Your task to perform on an android device: change the clock display to show seconds Image 0: 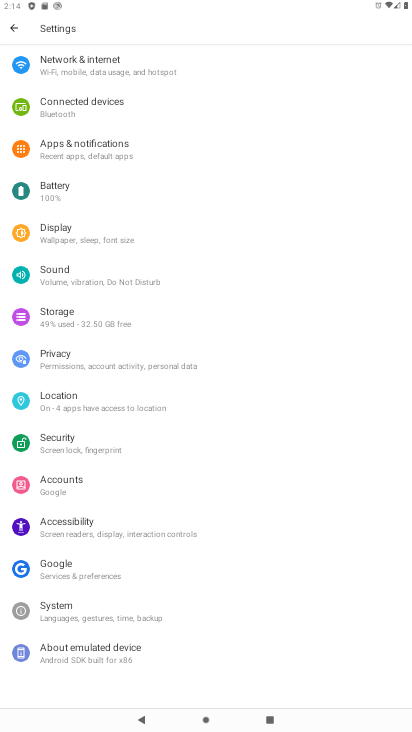
Step 0: press home button
Your task to perform on an android device: change the clock display to show seconds Image 1: 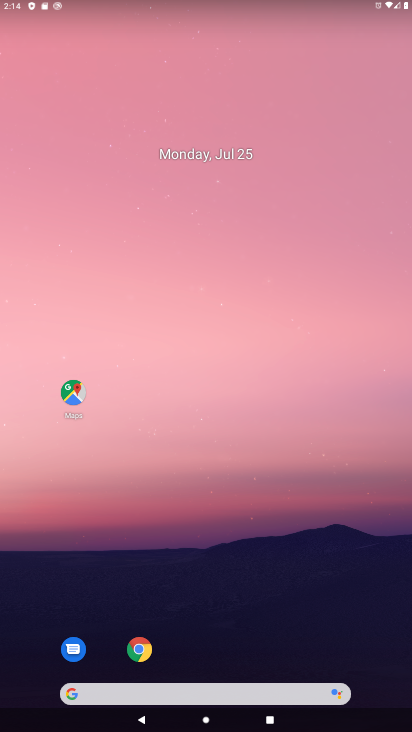
Step 1: drag from (384, 671) to (305, 86)
Your task to perform on an android device: change the clock display to show seconds Image 2: 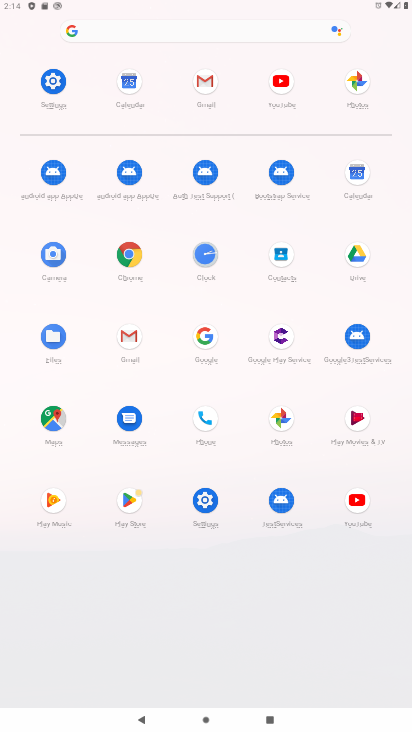
Step 2: click (208, 252)
Your task to perform on an android device: change the clock display to show seconds Image 3: 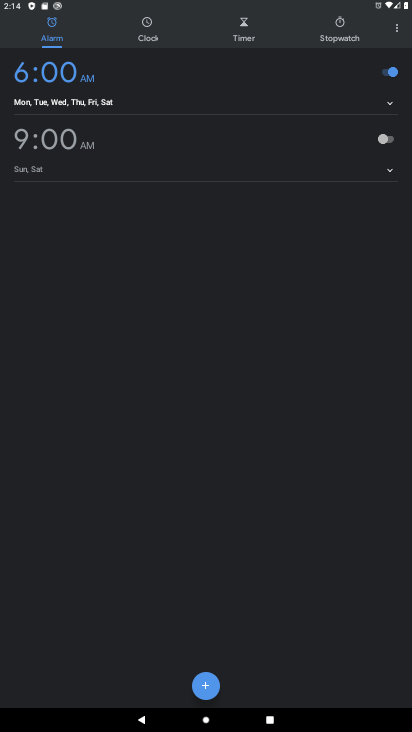
Step 3: click (398, 35)
Your task to perform on an android device: change the clock display to show seconds Image 4: 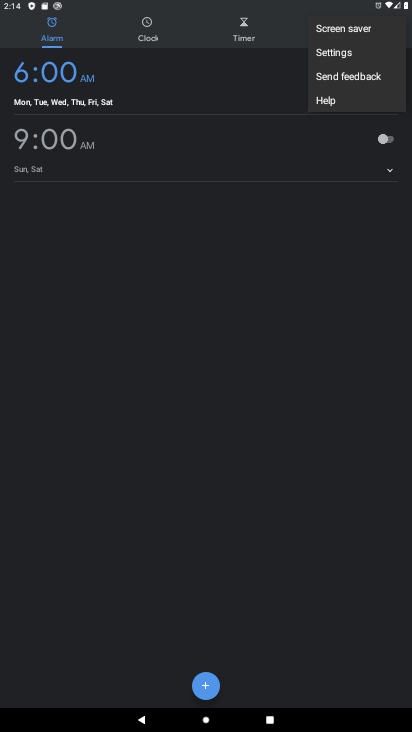
Step 4: click (331, 50)
Your task to perform on an android device: change the clock display to show seconds Image 5: 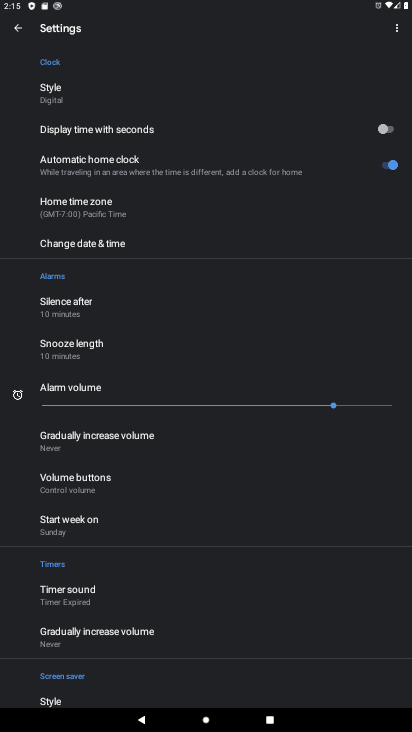
Step 5: click (393, 131)
Your task to perform on an android device: change the clock display to show seconds Image 6: 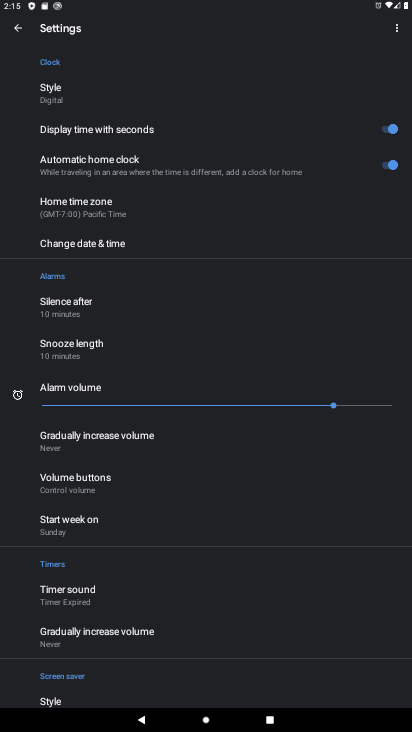
Step 6: task complete